Your task to perform on an android device: Open sound settings Image 0: 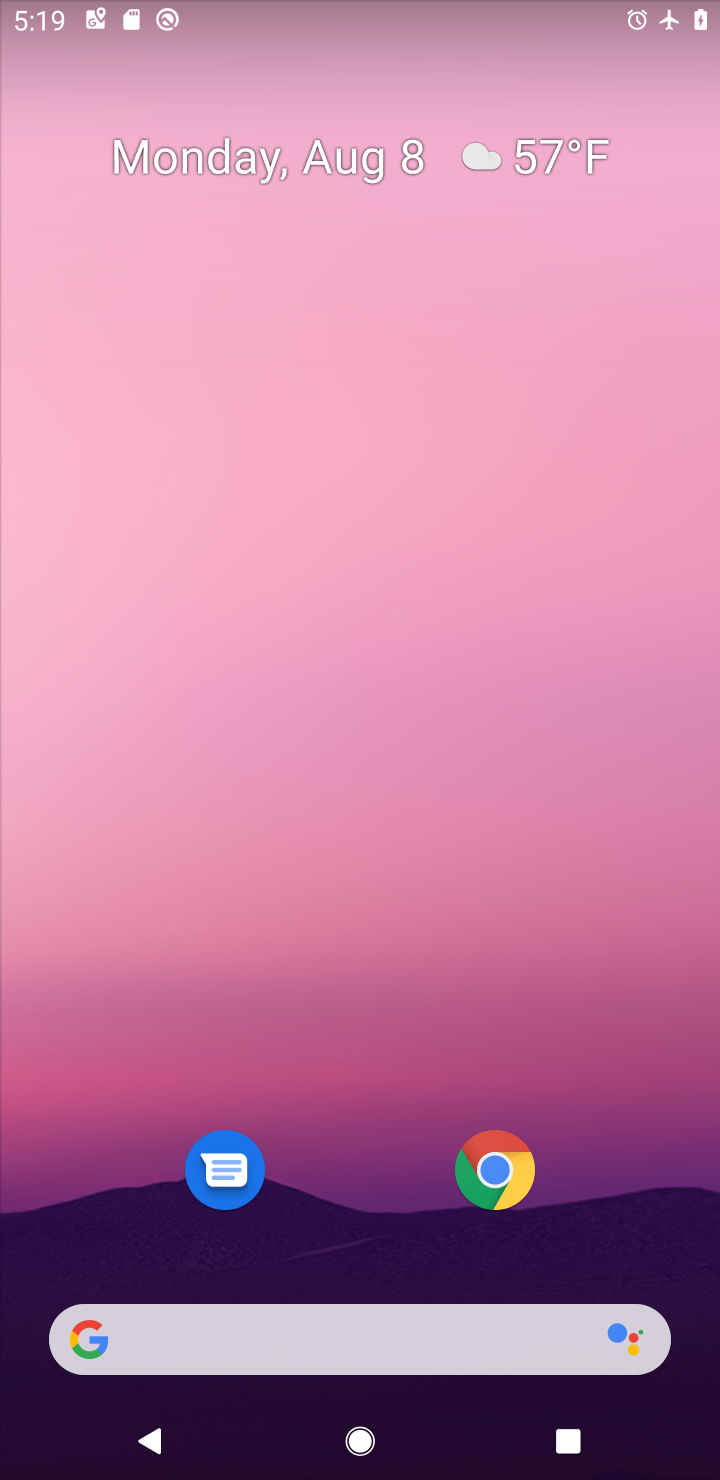
Step 0: drag from (354, 755) to (354, 239)
Your task to perform on an android device: Open sound settings Image 1: 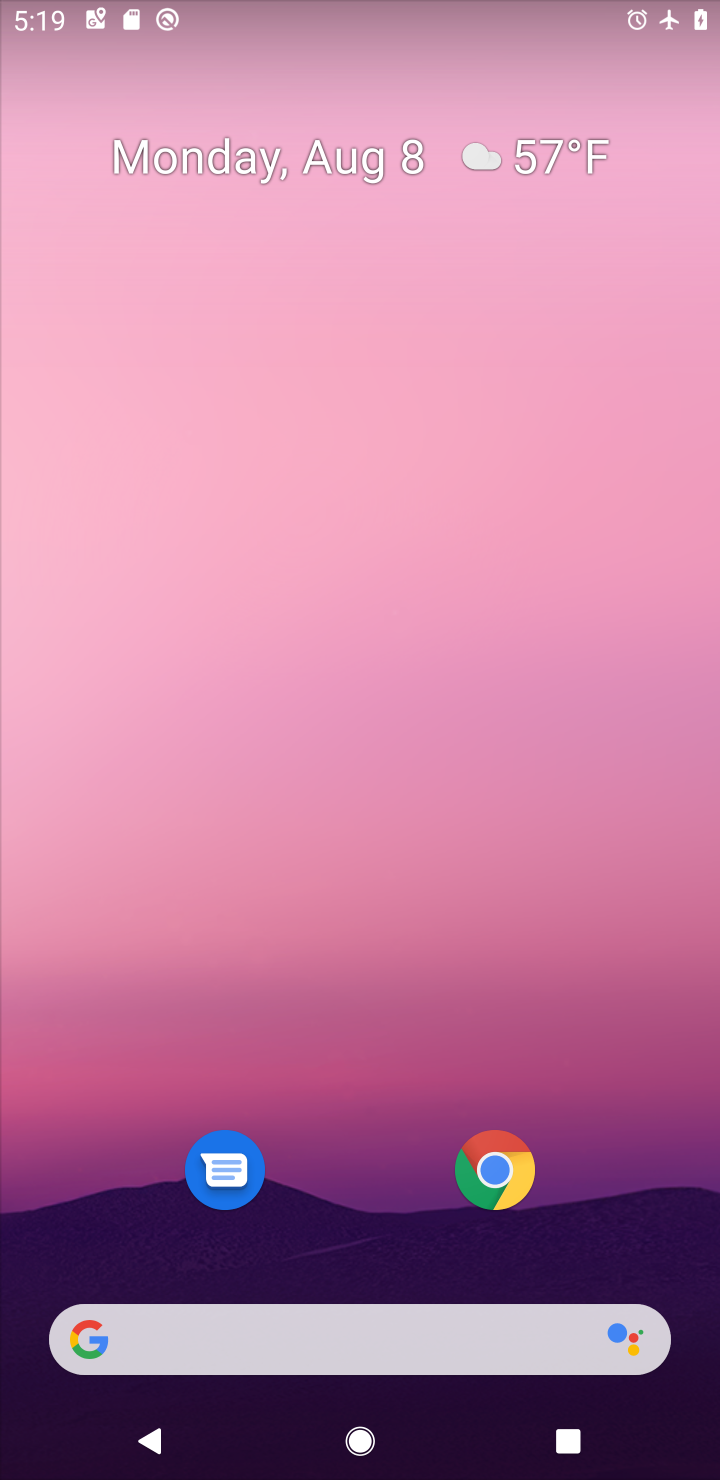
Step 1: drag from (375, 1173) to (380, 379)
Your task to perform on an android device: Open sound settings Image 2: 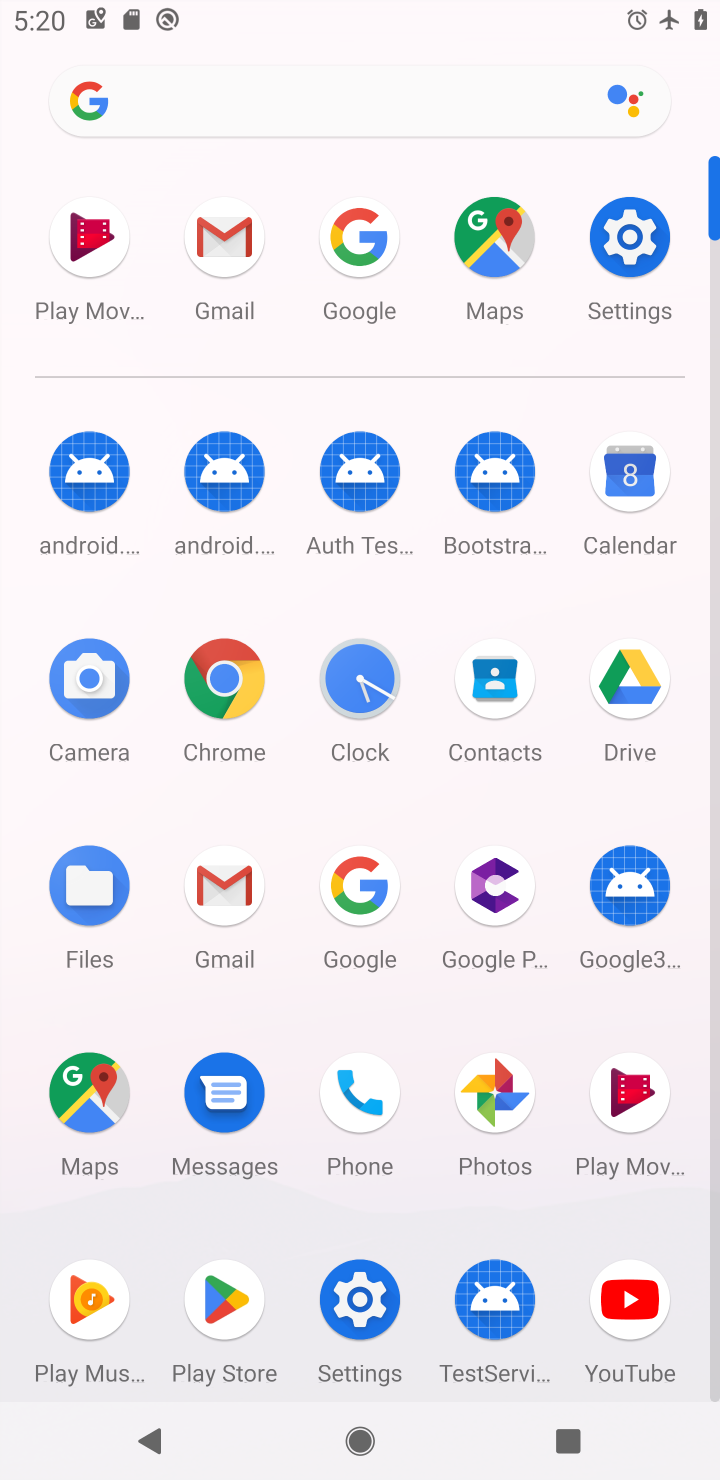
Step 2: click (637, 266)
Your task to perform on an android device: Open sound settings Image 3: 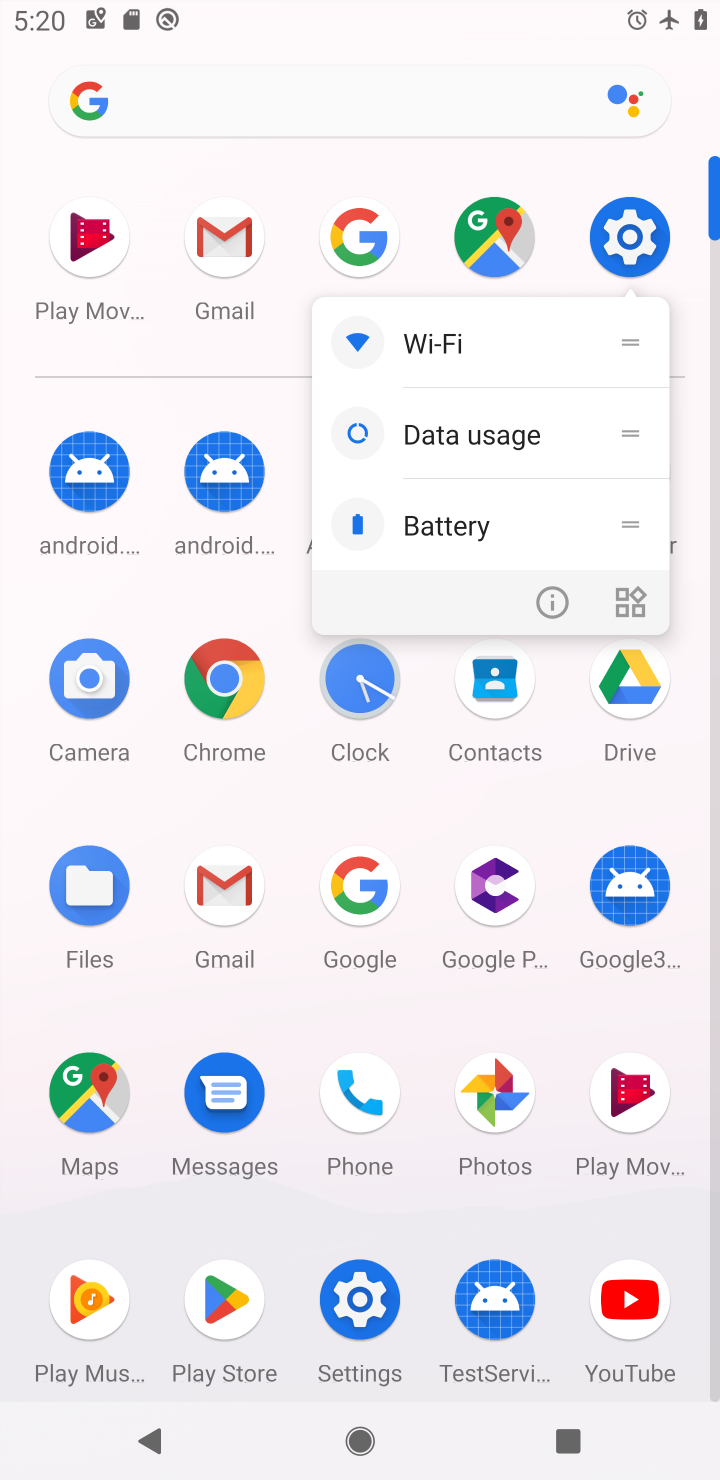
Step 3: click (628, 233)
Your task to perform on an android device: Open sound settings Image 4: 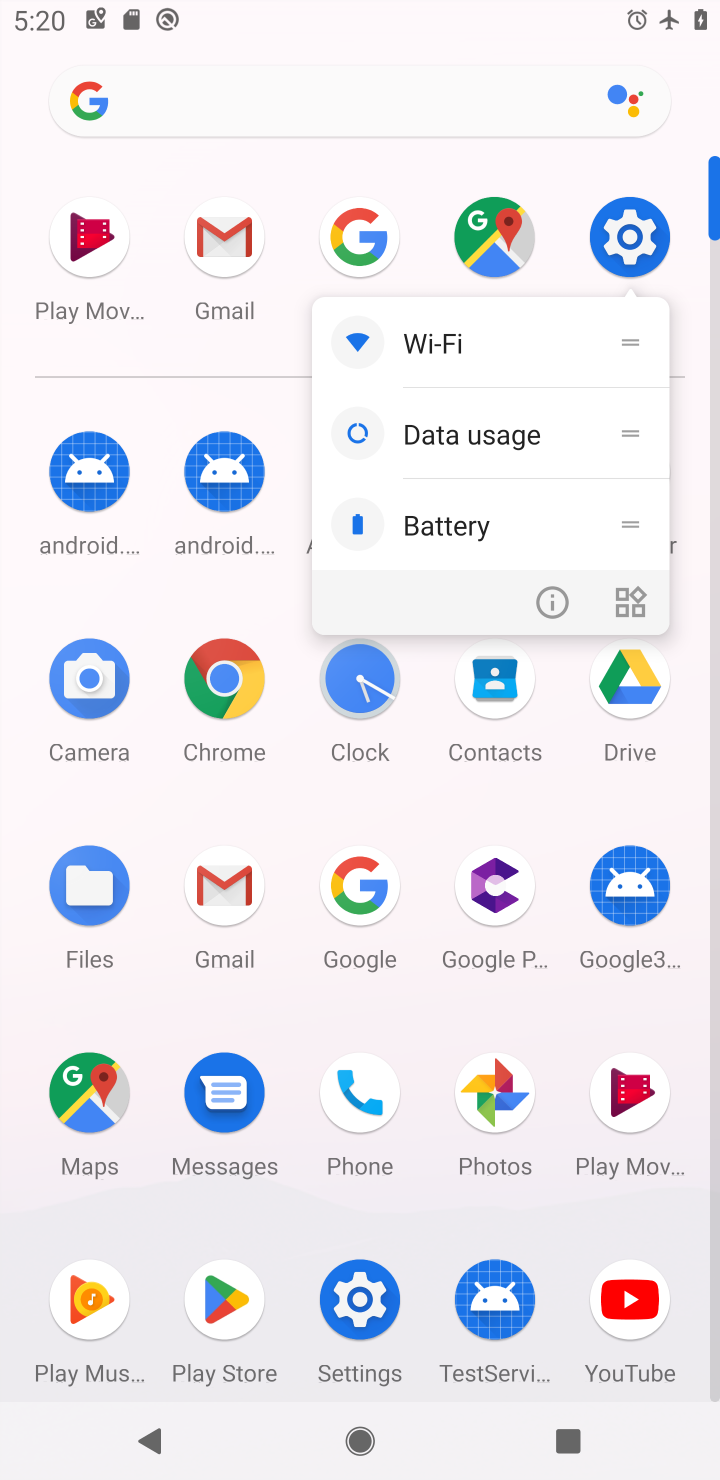
Step 4: click (590, 245)
Your task to perform on an android device: Open sound settings Image 5: 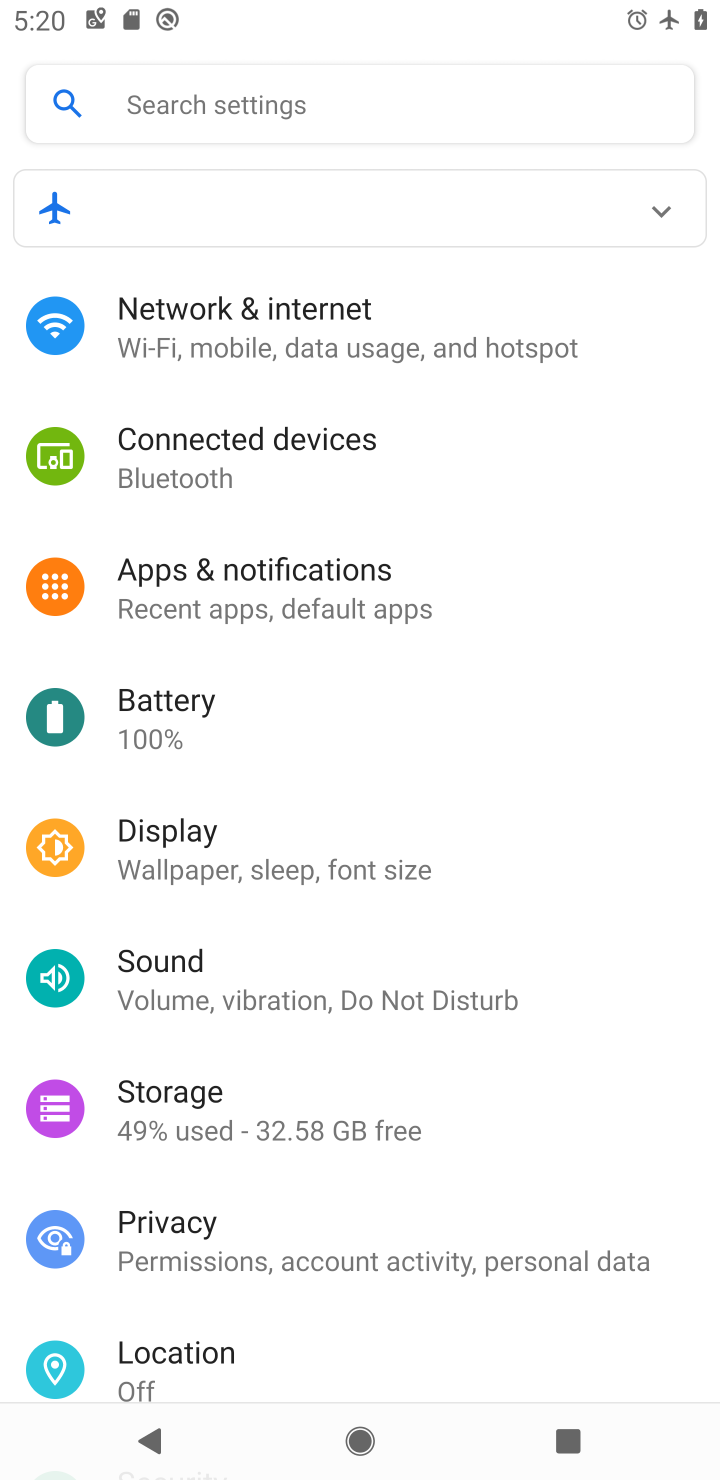
Step 5: click (239, 1007)
Your task to perform on an android device: Open sound settings Image 6: 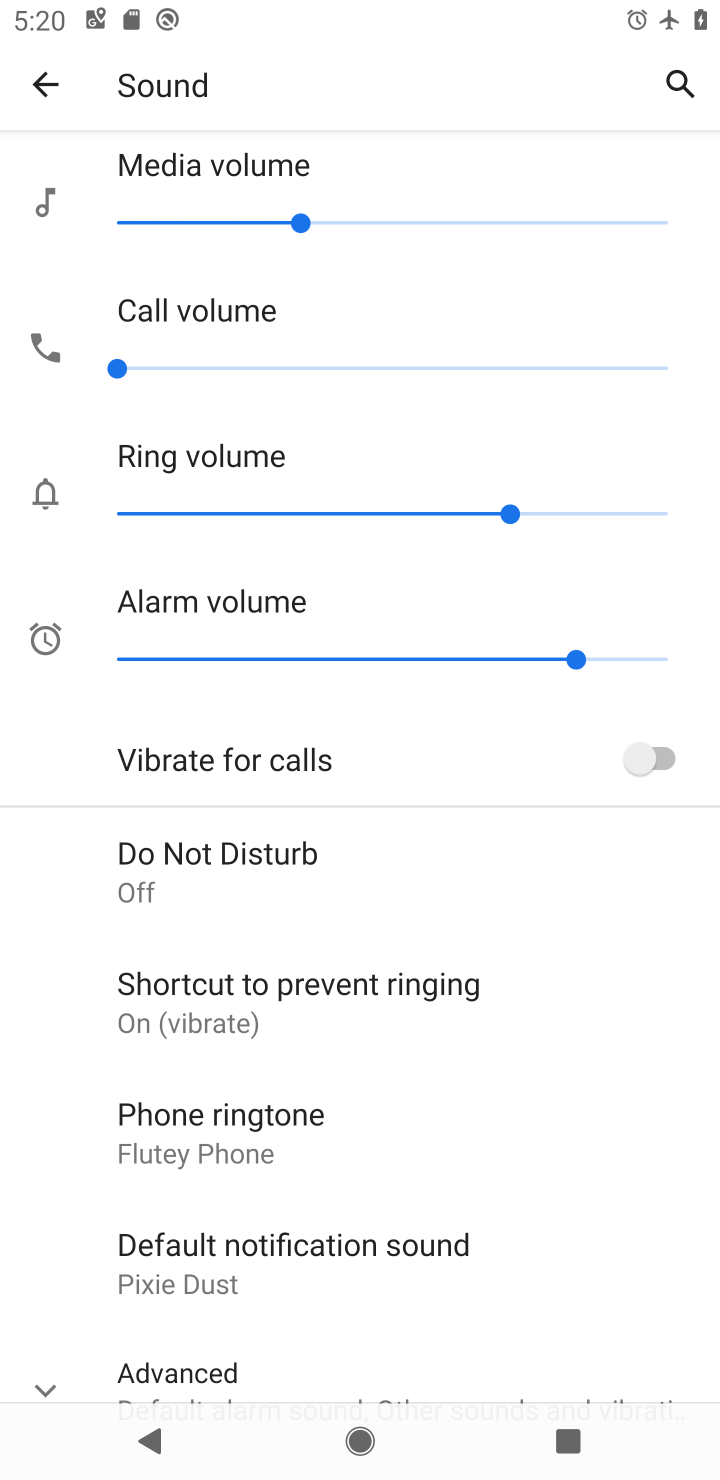
Step 6: task complete